Your task to perform on an android device: turn off wifi Image 0: 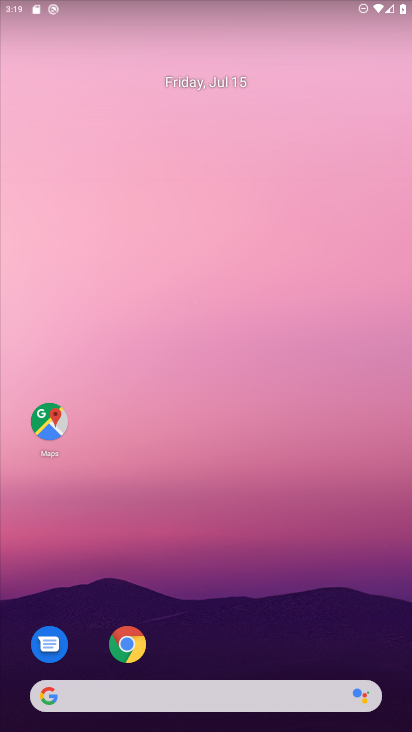
Step 0: drag from (319, 0) to (271, 542)
Your task to perform on an android device: turn off wifi Image 1: 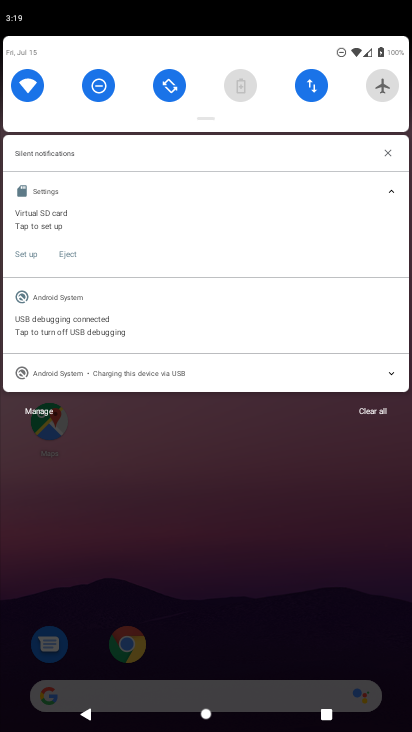
Step 1: click (25, 95)
Your task to perform on an android device: turn off wifi Image 2: 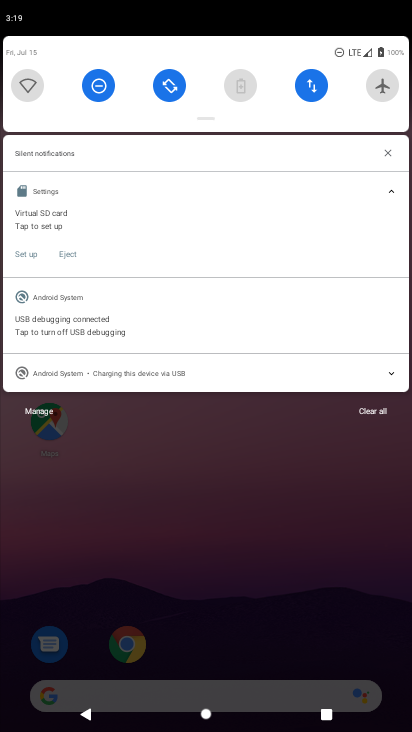
Step 2: task complete